Your task to perform on an android device: open app "AliExpress" Image 0: 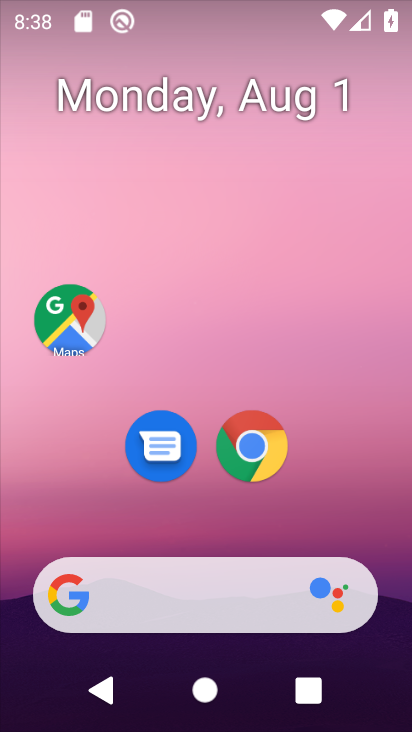
Step 0: drag from (204, 521) to (205, 38)
Your task to perform on an android device: open app "AliExpress" Image 1: 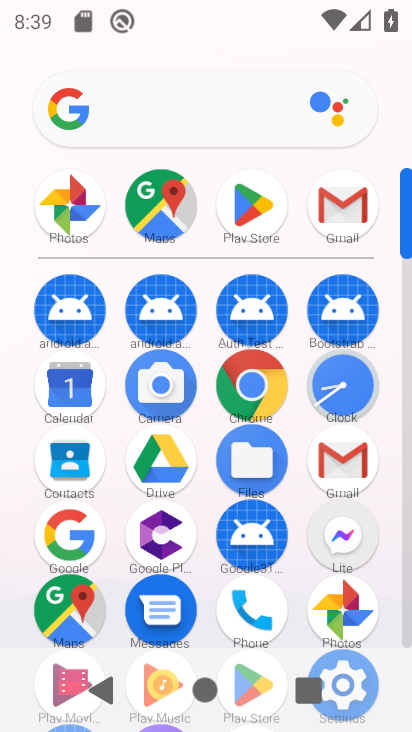
Step 1: click (243, 208)
Your task to perform on an android device: open app "AliExpress" Image 2: 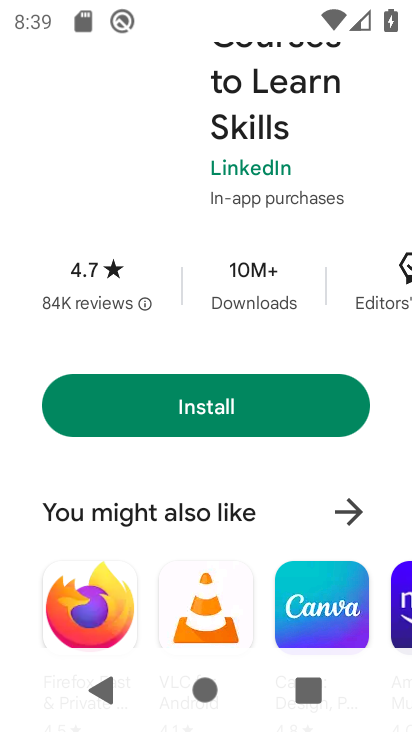
Step 2: drag from (148, 134) to (209, 597)
Your task to perform on an android device: open app "AliExpress" Image 3: 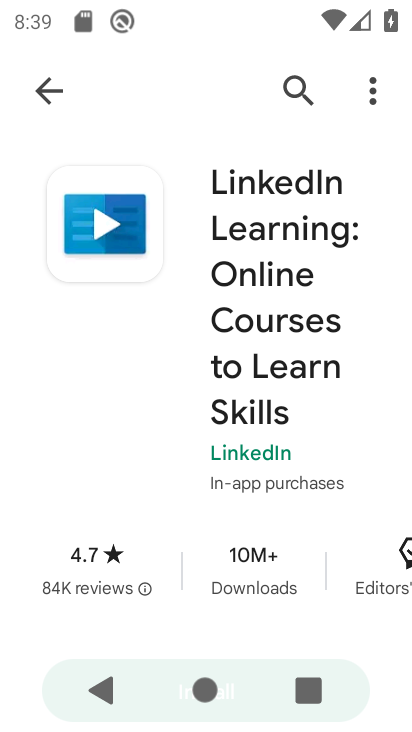
Step 3: click (300, 87)
Your task to perform on an android device: open app "AliExpress" Image 4: 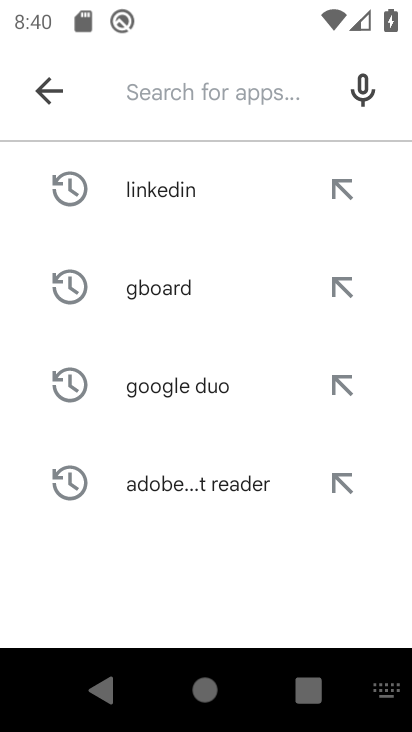
Step 4: type "AliExpress"
Your task to perform on an android device: open app "AliExpress" Image 5: 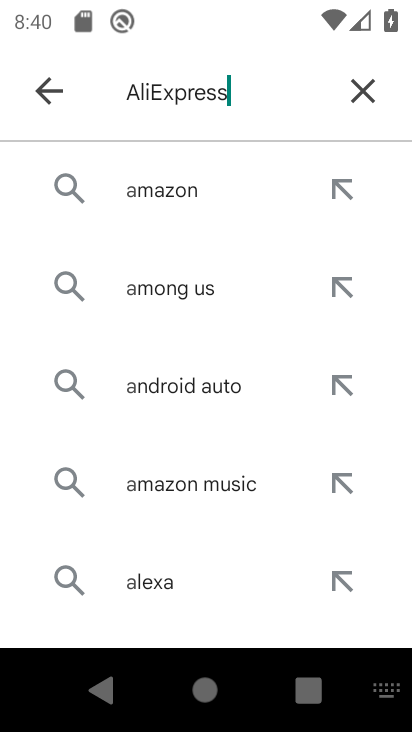
Step 5: type ""
Your task to perform on an android device: open app "AliExpress" Image 6: 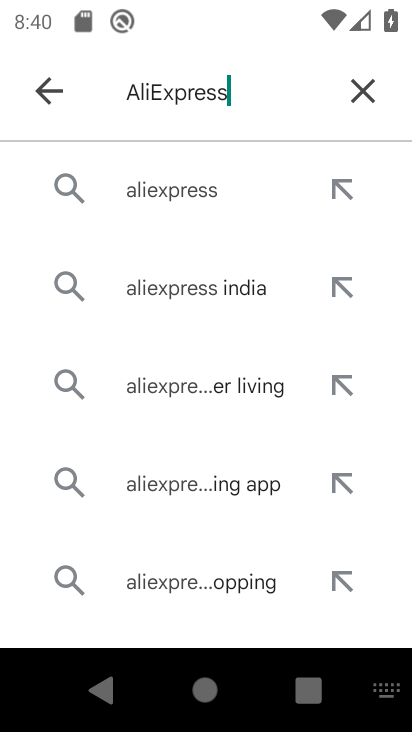
Step 6: click (175, 181)
Your task to perform on an android device: open app "AliExpress" Image 7: 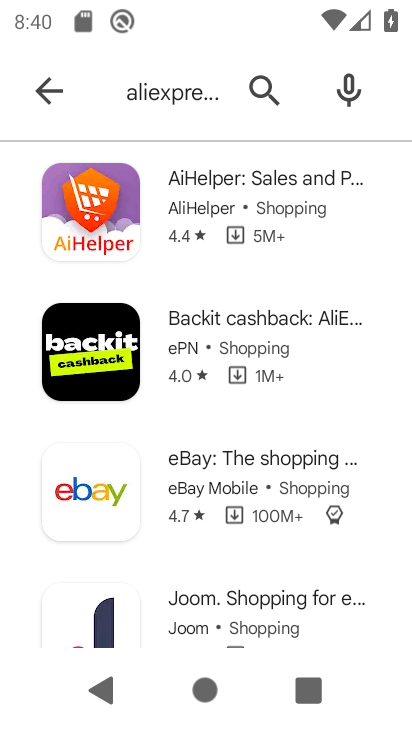
Step 7: task complete